Your task to perform on an android device: Turn on the flashlight Image 0: 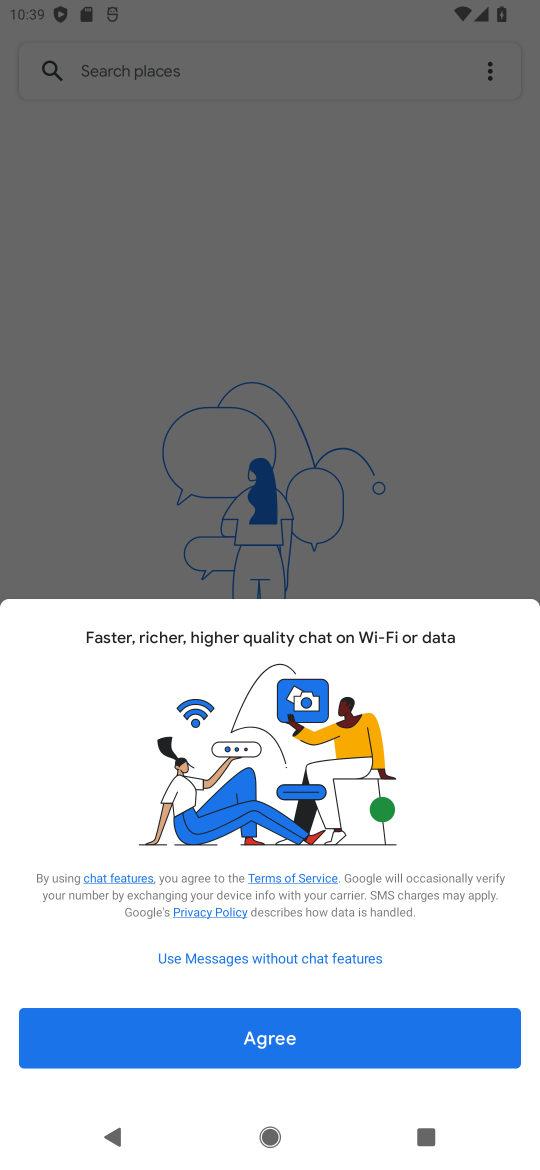
Step 0: press home button
Your task to perform on an android device: Turn on the flashlight Image 1: 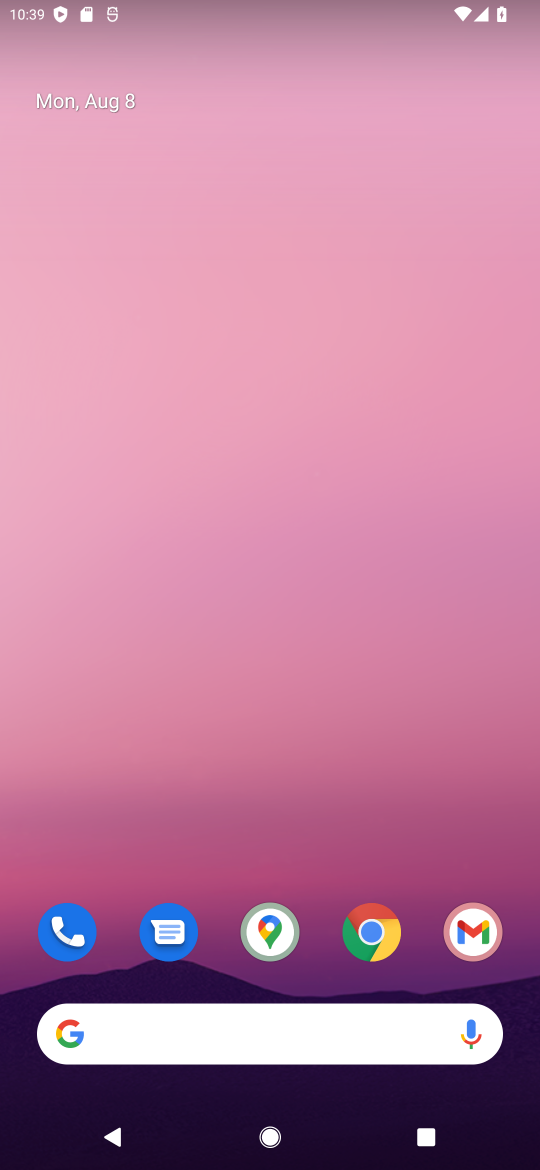
Step 1: drag from (321, 859) to (390, 221)
Your task to perform on an android device: Turn on the flashlight Image 2: 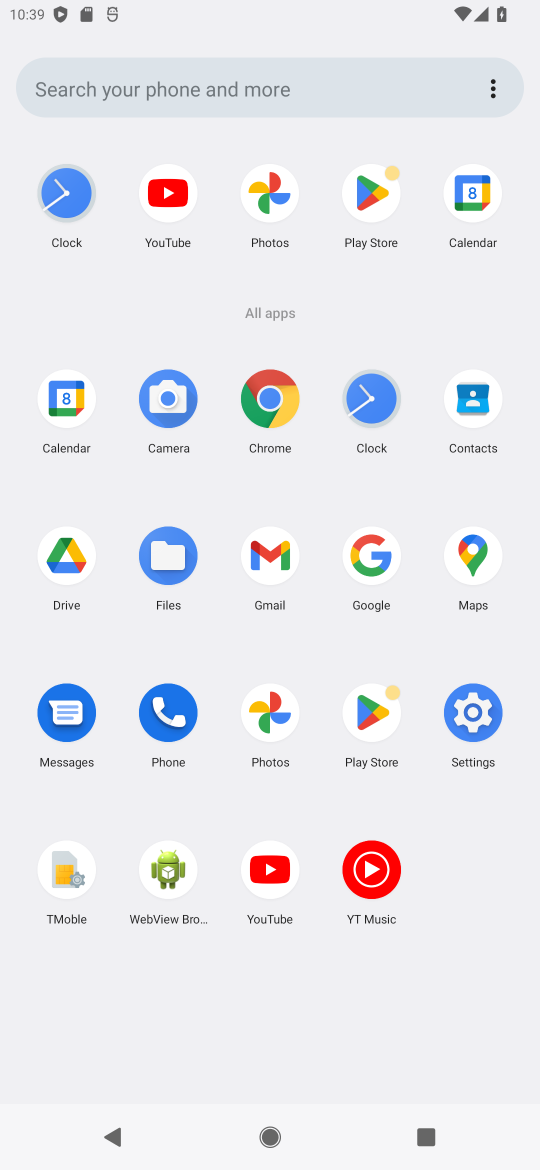
Step 2: click (503, 704)
Your task to perform on an android device: Turn on the flashlight Image 3: 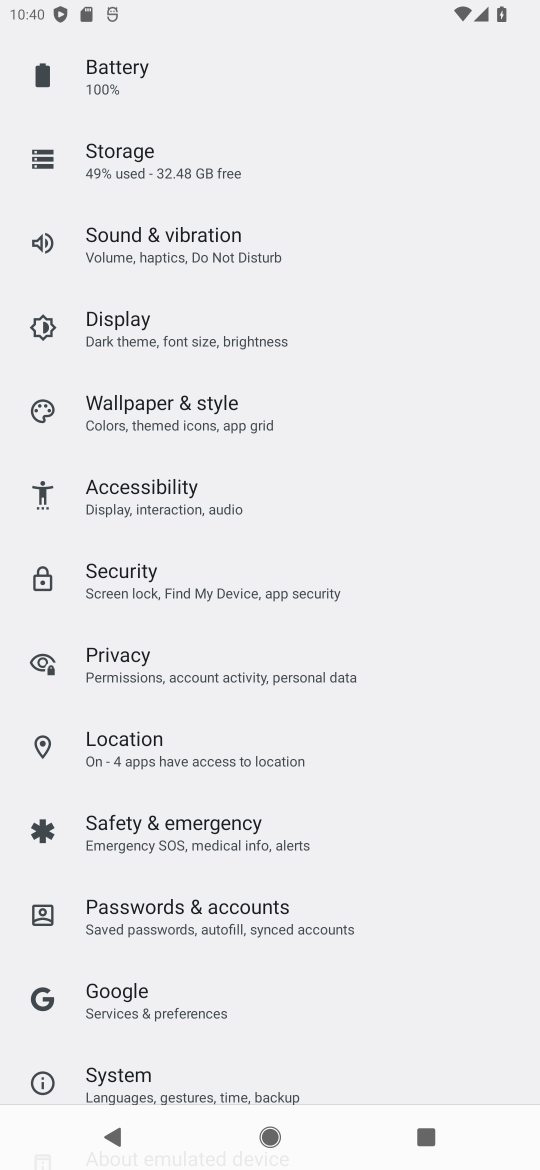
Step 3: task complete